Your task to perform on an android device: Open settings Image 0: 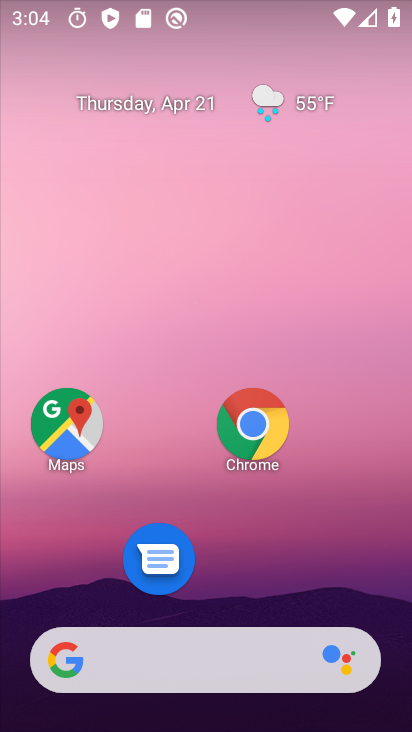
Step 0: drag from (261, 556) to (211, 162)
Your task to perform on an android device: Open settings Image 1: 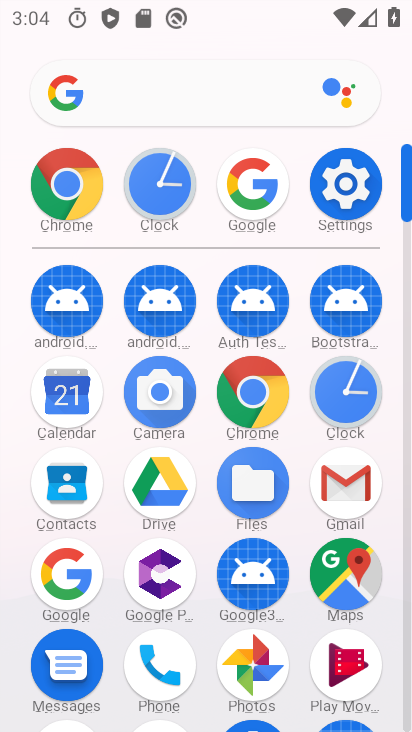
Step 1: click (349, 194)
Your task to perform on an android device: Open settings Image 2: 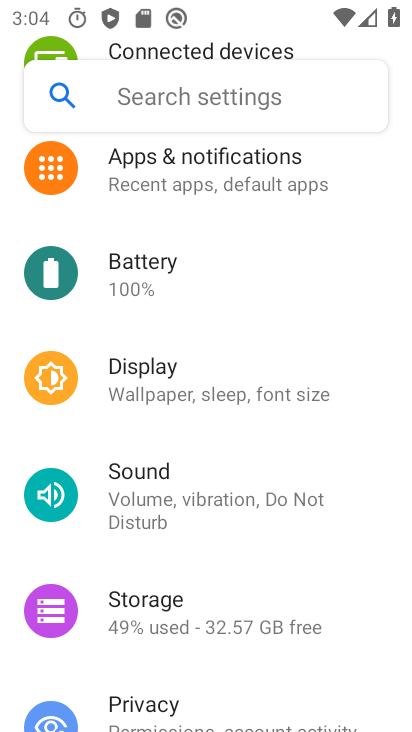
Step 2: task complete